Your task to perform on an android device: Clear the cart on target. Search for acer predator on target, select the first entry, and add it to the cart. Image 0: 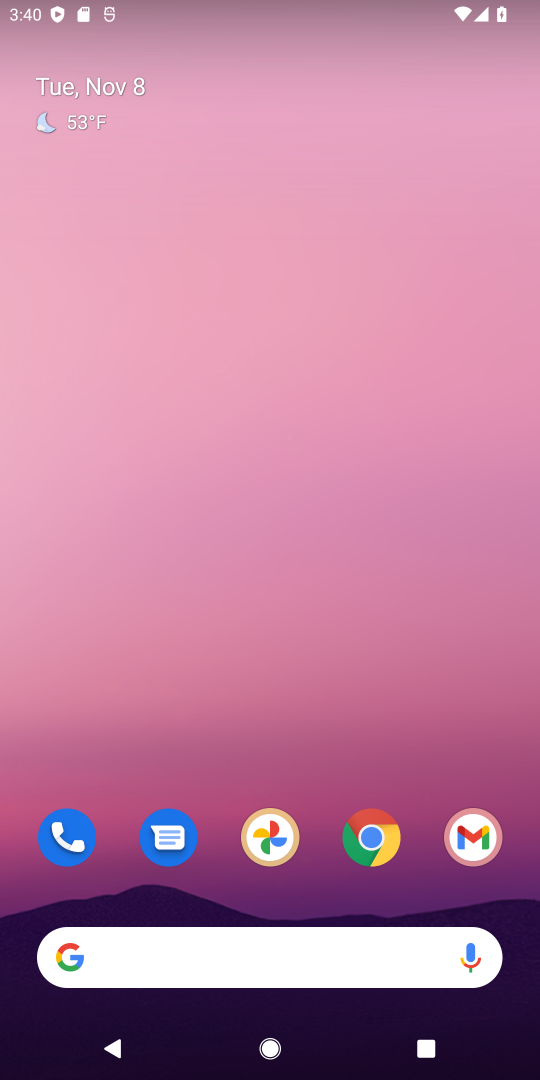
Step 0: click (385, 836)
Your task to perform on an android device: Clear the cart on target. Search for acer predator on target, select the first entry, and add it to the cart. Image 1: 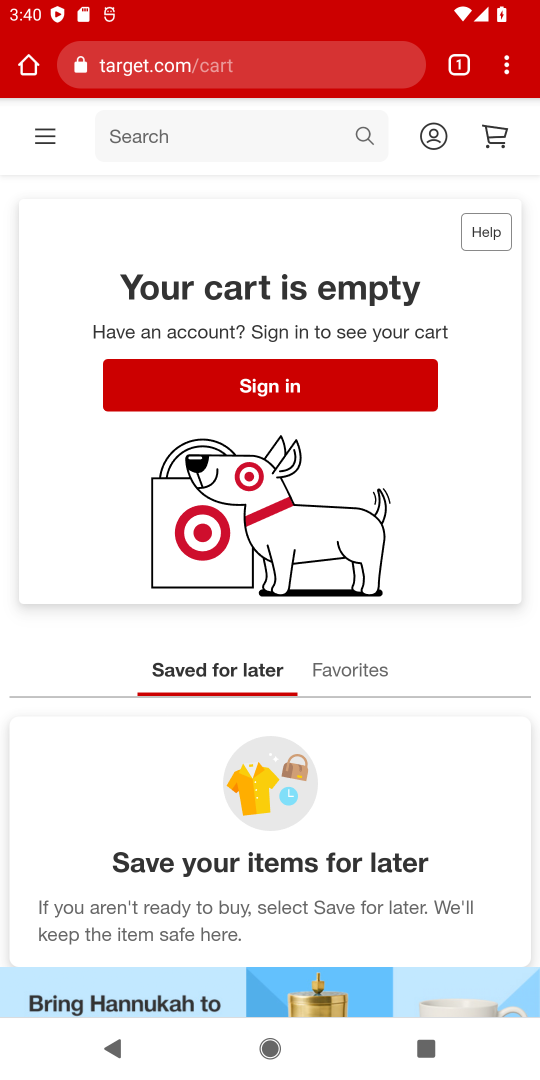
Step 1: click (118, 74)
Your task to perform on an android device: Clear the cart on target. Search for acer predator on target, select the first entry, and add it to the cart. Image 2: 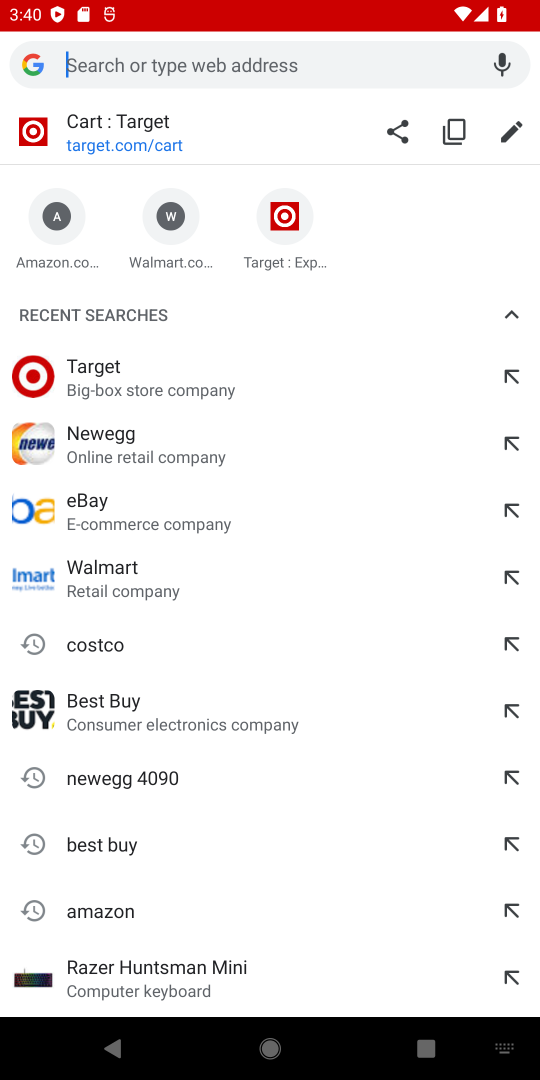
Step 2: click (108, 378)
Your task to perform on an android device: Clear the cart on target. Search for acer predator on target, select the first entry, and add it to the cart. Image 3: 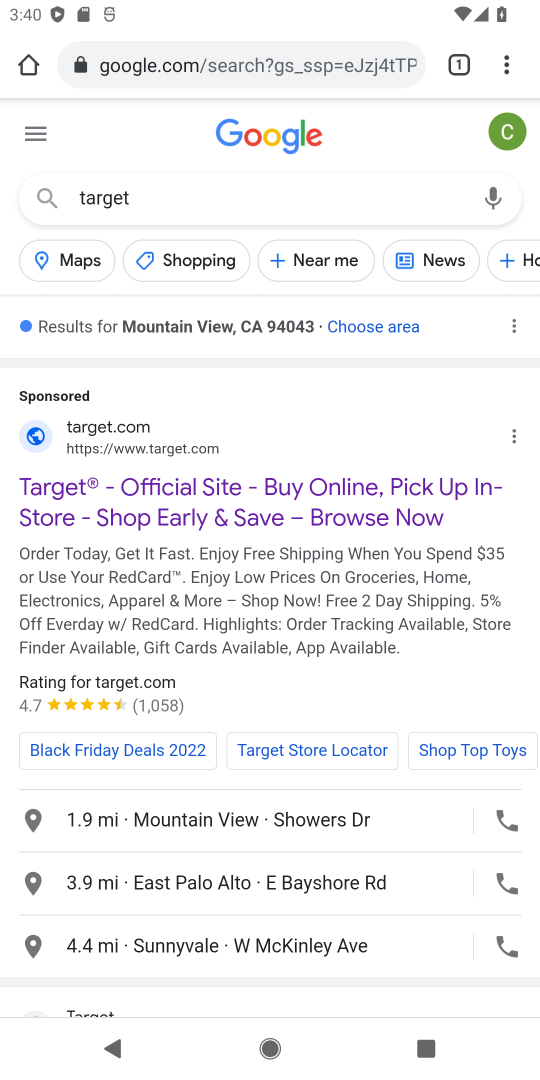
Step 3: click (190, 493)
Your task to perform on an android device: Clear the cart on target. Search for acer predator on target, select the first entry, and add it to the cart. Image 4: 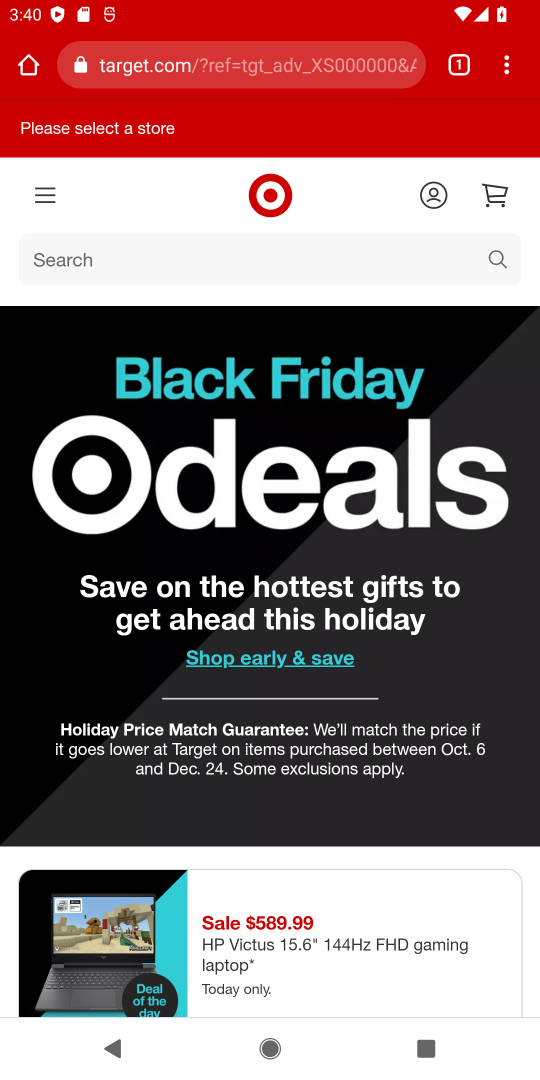
Step 4: click (491, 258)
Your task to perform on an android device: Clear the cart on target. Search for acer predator on target, select the first entry, and add it to the cart. Image 5: 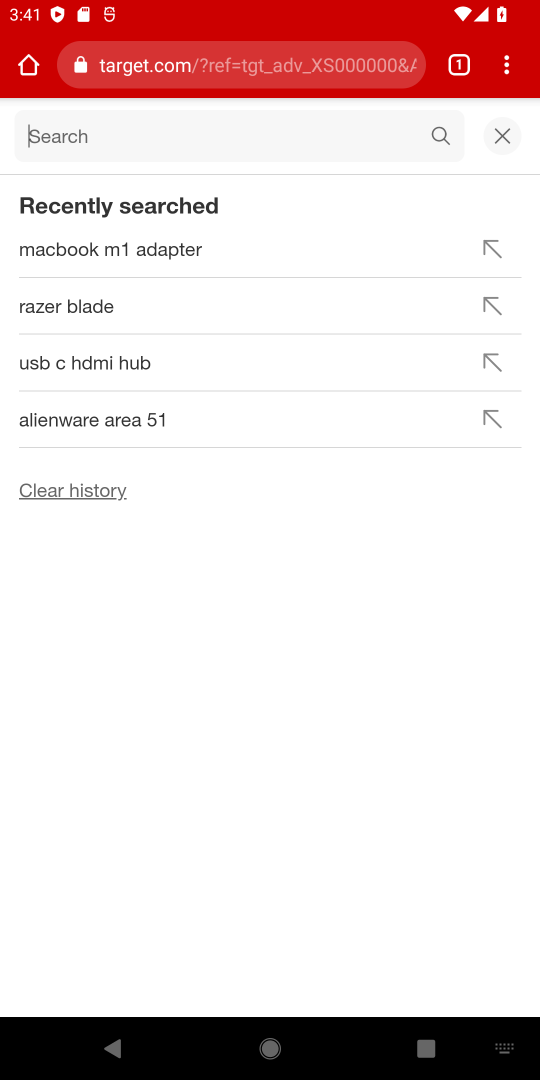
Step 5: type "acer predator"
Your task to perform on an android device: Clear the cart on target. Search for acer predator on target, select the first entry, and add it to the cart. Image 6: 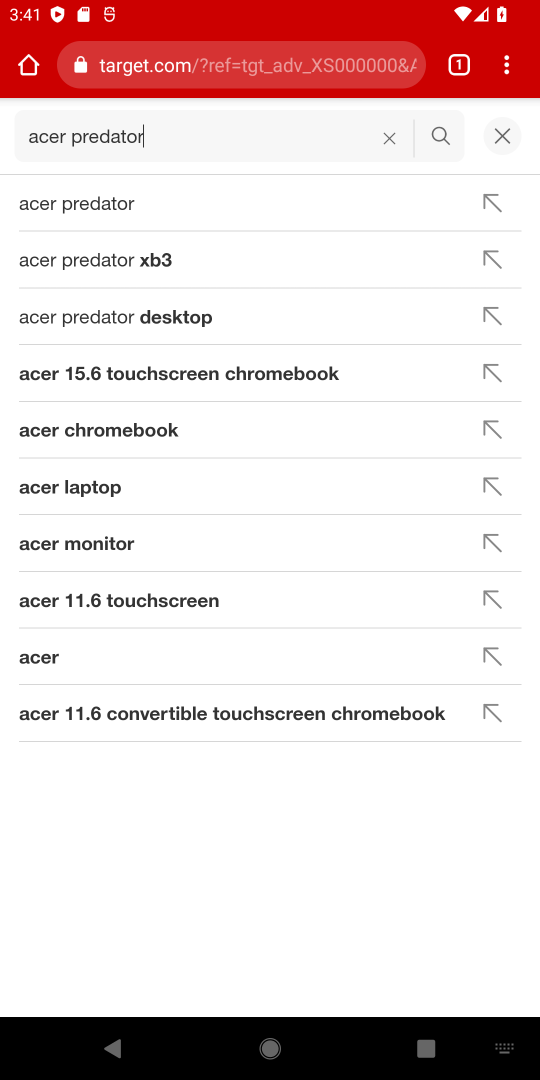
Step 6: click (103, 199)
Your task to perform on an android device: Clear the cart on target. Search for acer predator on target, select the first entry, and add it to the cart. Image 7: 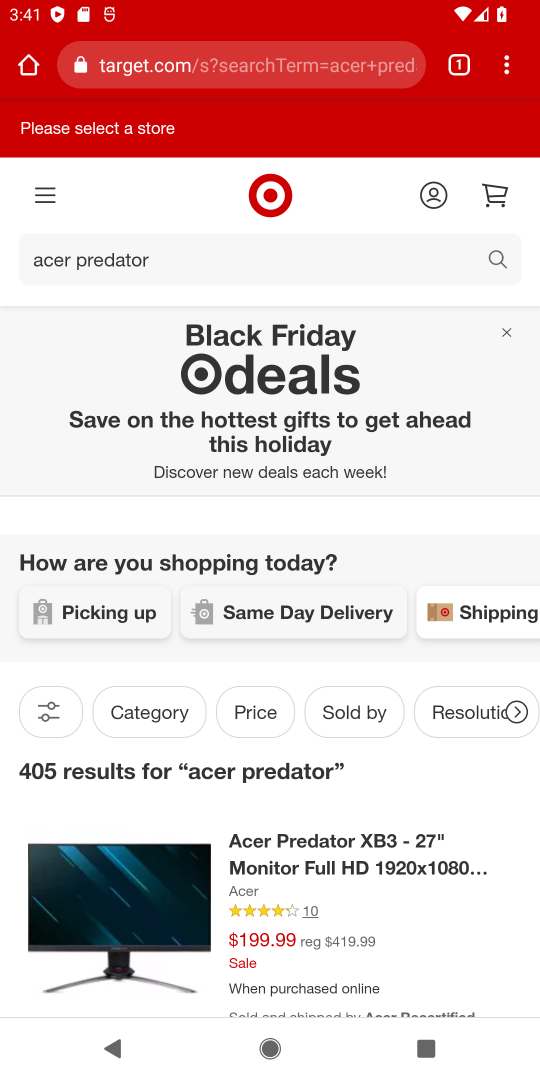
Step 7: click (311, 841)
Your task to perform on an android device: Clear the cart on target. Search for acer predator on target, select the first entry, and add it to the cart. Image 8: 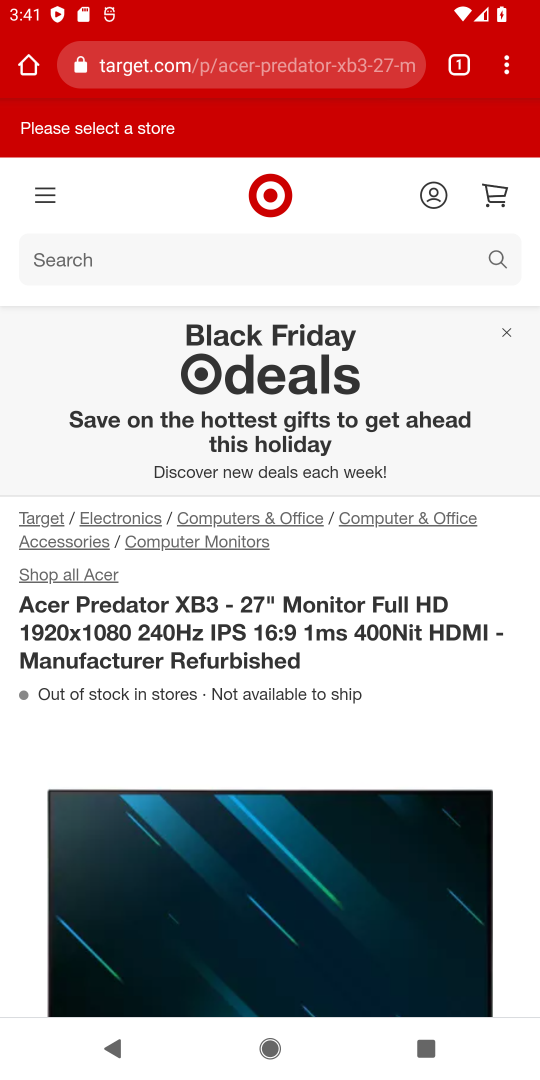
Step 8: drag from (338, 883) to (363, 336)
Your task to perform on an android device: Clear the cart on target. Search for acer predator on target, select the first entry, and add it to the cart. Image 9: 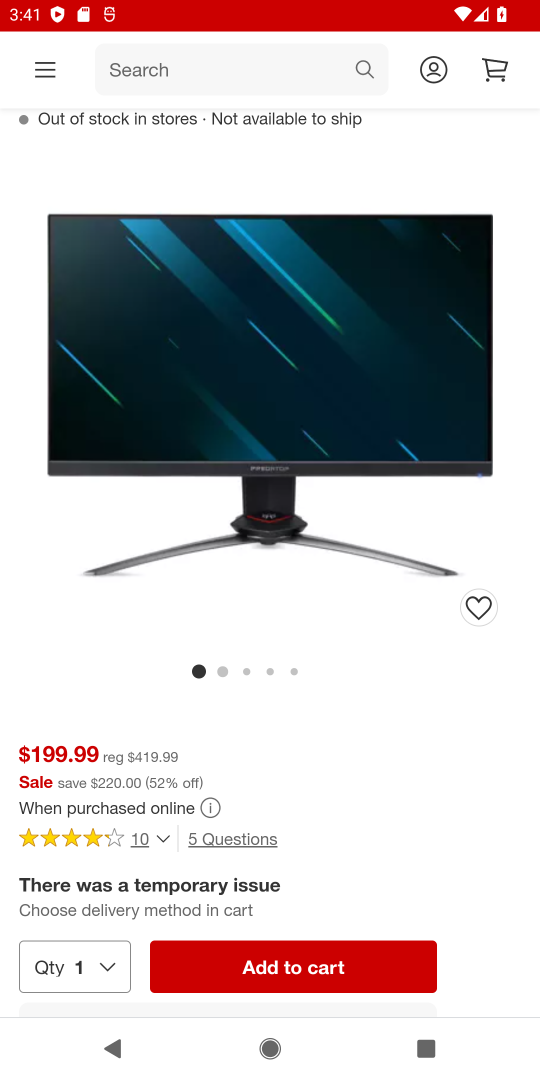
Step 9: click (299, 962)
Your task to perform on an android device: Clear the cart on target. Search for acer predator on target, select the first entry, and add it to the cart. Image 10: 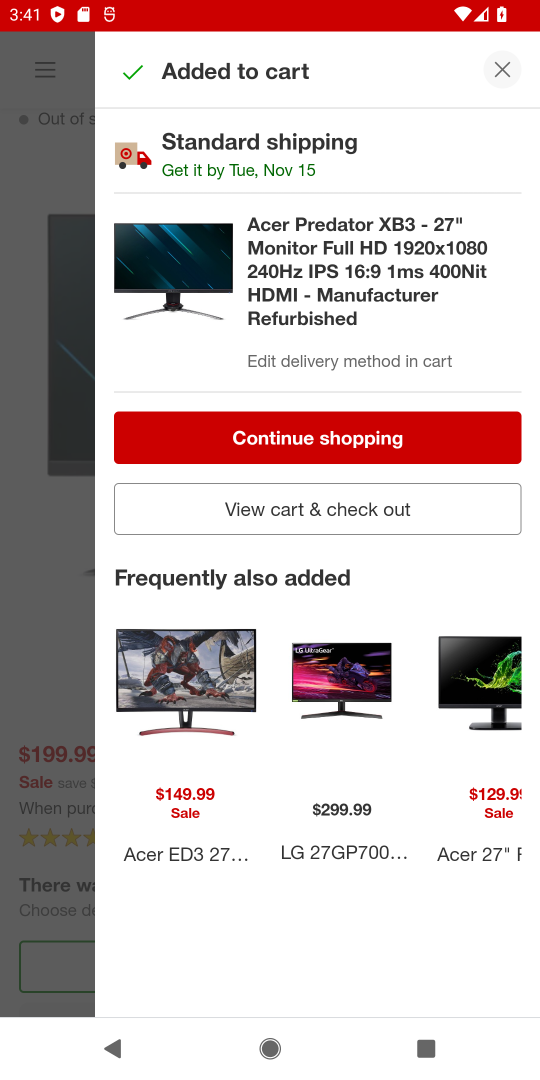
Step 10: click (303, 498)
Your task to perform on an android device: Clear the cart on target. Search for acer predator on target, select the first entry, and add it to the cart. Image 11: 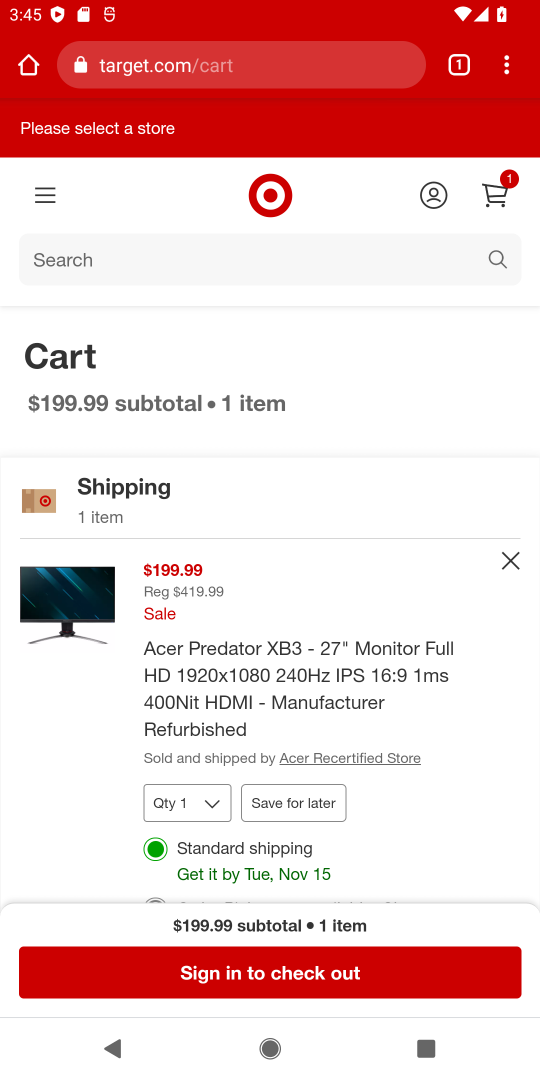
Step 11: click (333, 974)
Your task to perform on an android device: Clear the cart on target. Search for acer predator on target, select the first entry, and add it to the cart. Image 12: 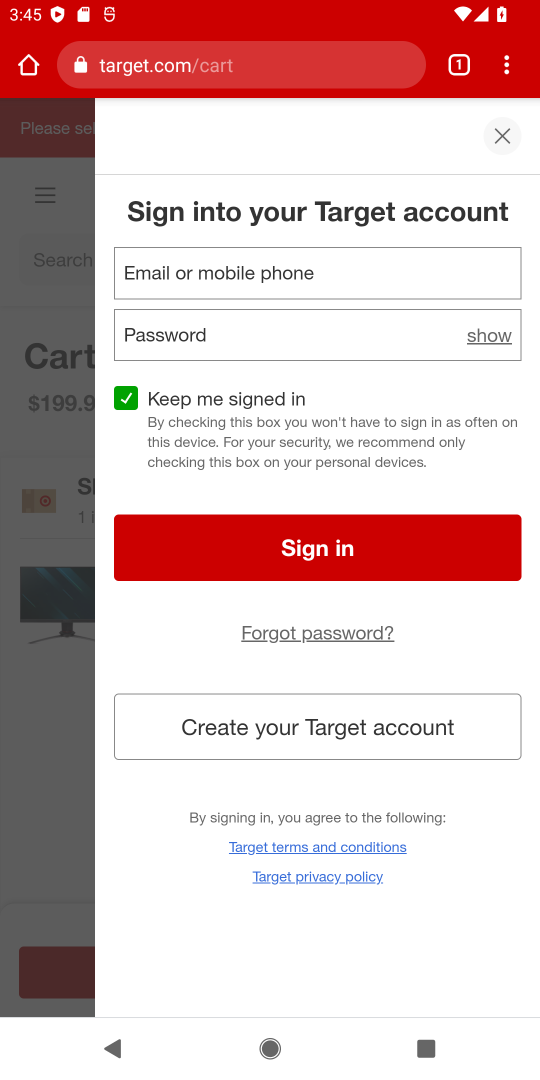
Step 12: task complete